Your task to perform on an android device: turn pop-ups on in chrome Image 0: 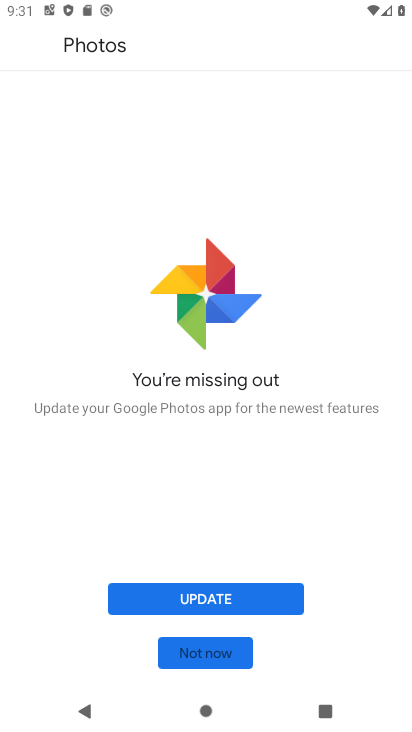
Step 0: press home button
Your task to perform on an android device: turn pop-ups on in chrome Image 1: 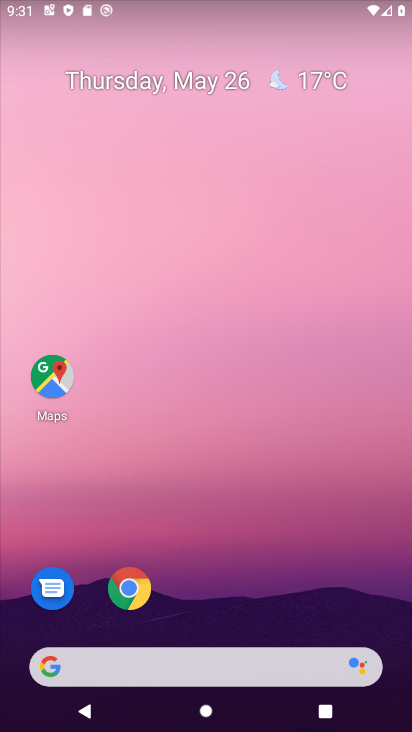
Step 1: click (130, 590)
Your task to perform on an android device: turn pop-ups on in chrome Image 2: 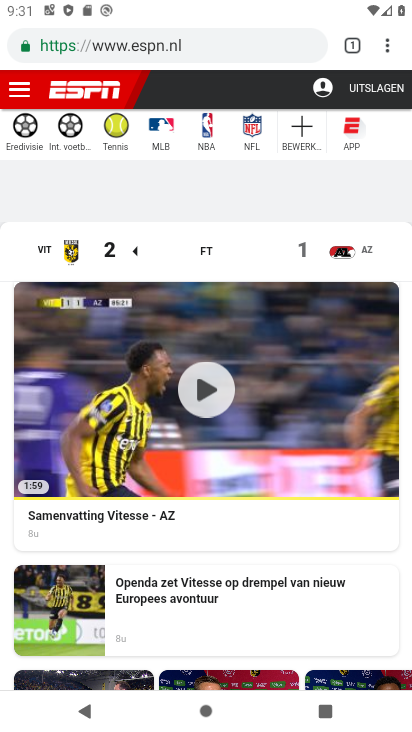
Step 2: click (389, 50)
Your task to perform on an android device: turn pop-ups on in chrome Image 3: 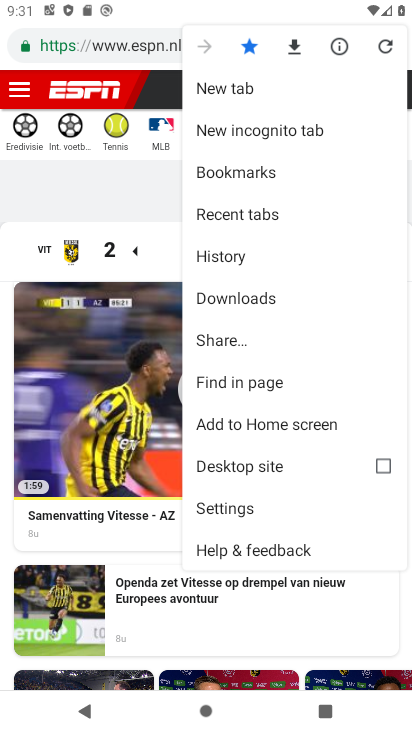
Step 3: click (214, 506)
Your task to perform on an android device: turn pop-ups on in chrome Image 4: 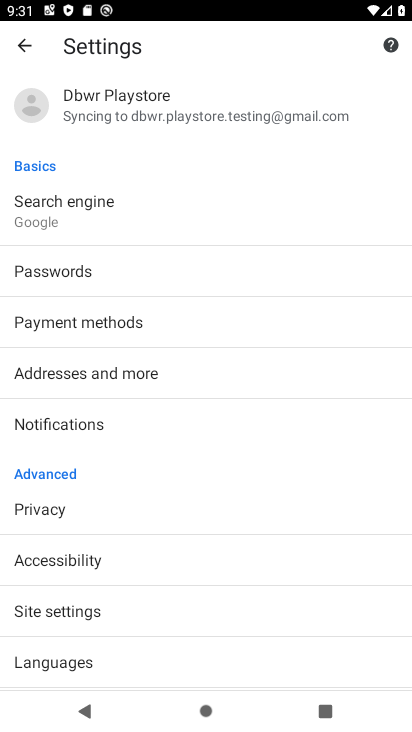
Step 4: drag from (150, 539) to (164, 355)
Your task to perform on an android device: turn pop-ups on in chrome Image 5: 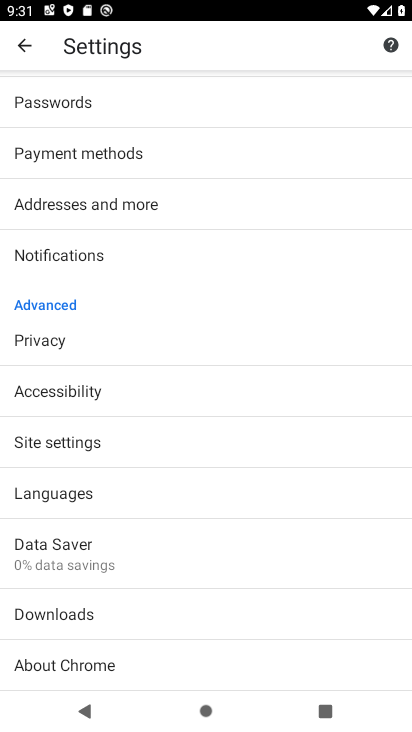
Step 5: click (33, 447)
Your task to perform on an android device: turn pop-ups on in chrome Image 6: 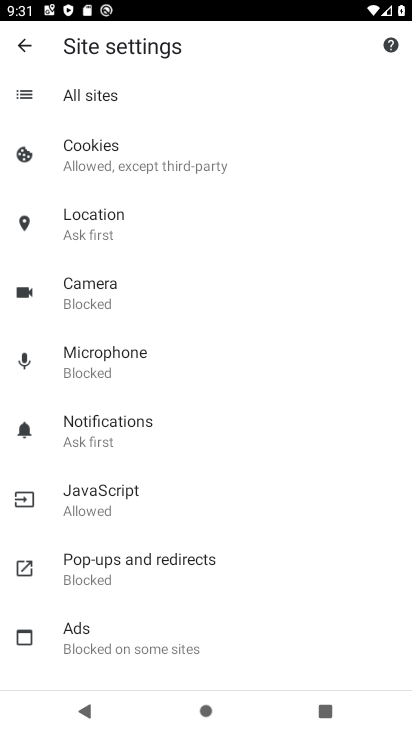
Step 6: click (104, 557)
Your task to perform on an android device: turn pop-ups on in chrome Image 7: 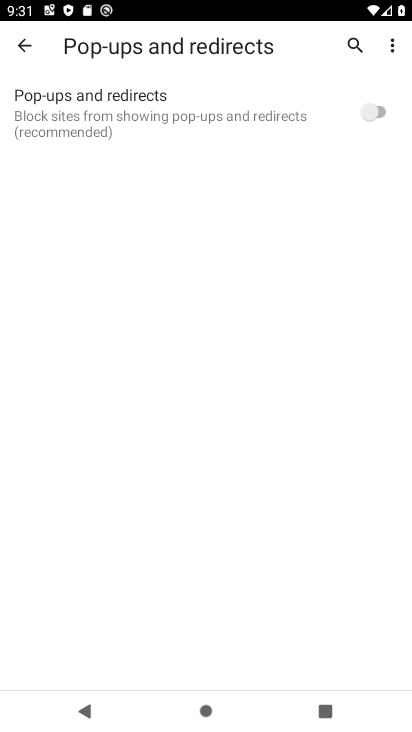
Step 7: click (382, 114)
Your task to perform on an android device: turn pop-ups on in chrome Image 8: 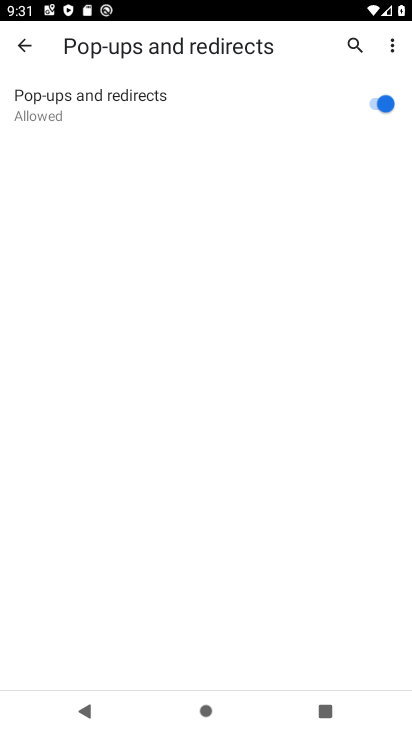
Step 8: task complete